Your task to perform on an android device: open a bookmark in the chrome app Image 0: 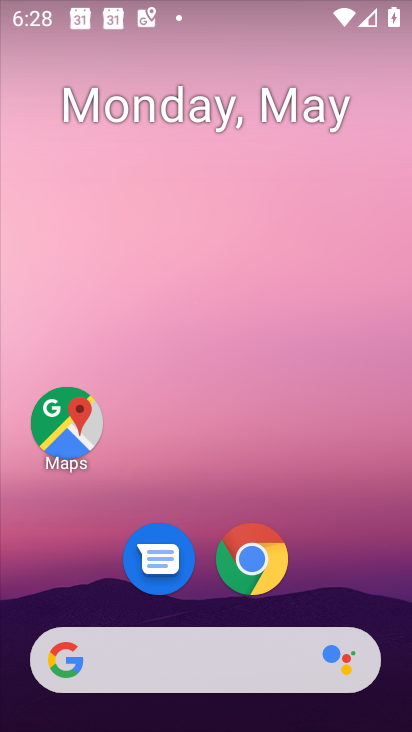
Step 0: drag from (395, 632) to (397, 319)
Your task to perform on an android device: open a bookmark in the chrome app Image 1: 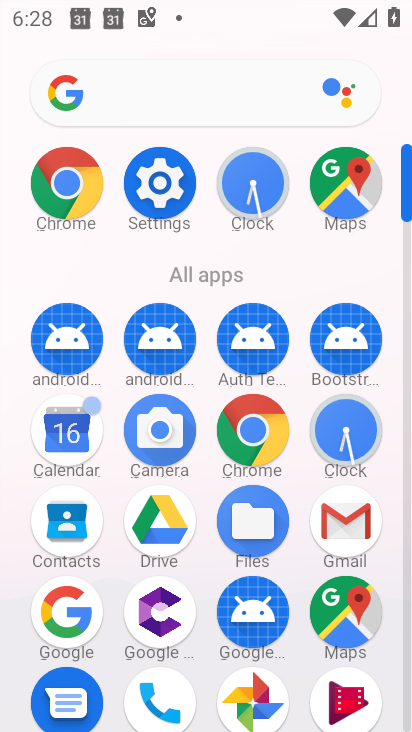
Step 1: click (73, 205)
Your task to perform on an android device: open a bookmark in the chrome app Image 2: 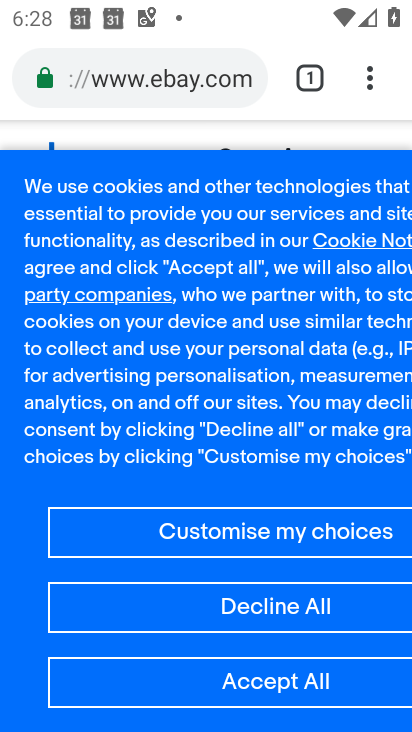
Step 2: press back button
Your task to perform on an android device: open a bookmark in the chrome app Image 3: 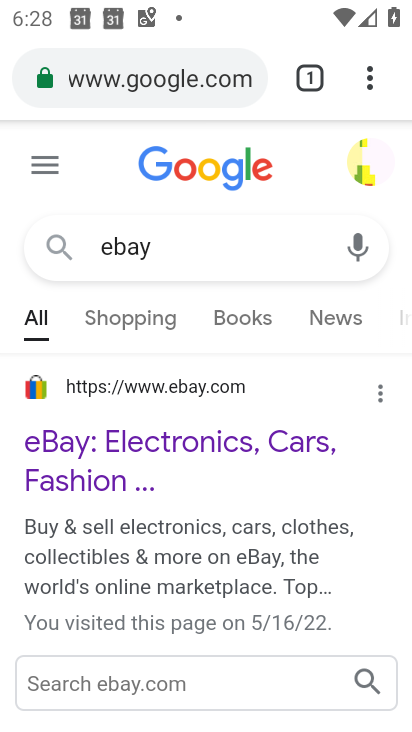
Step 3: press back button
Your task to perform on an android device: open a bookmark in the chrome app Image 4: 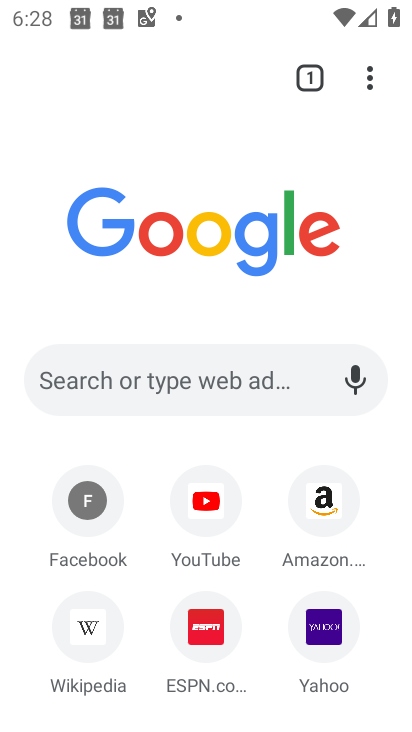
Step 4: click (369, 78)
Your task to perform on an android device: open a bookmark in the chrome app Image 5: 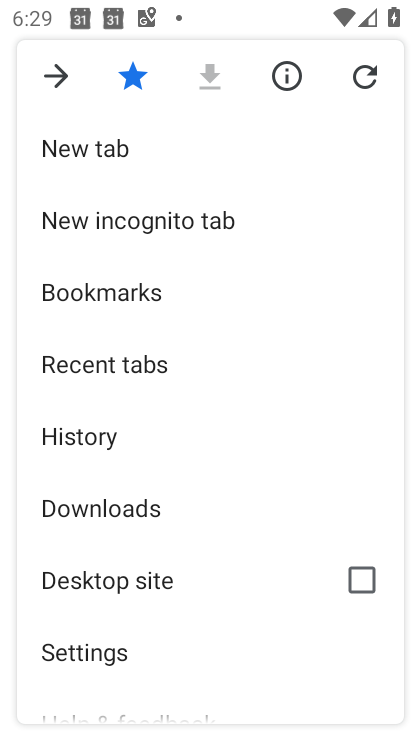
Step 5: click (203, 286)
Your task to perform on an android device: open a bookmark in the chrome app Image 6: 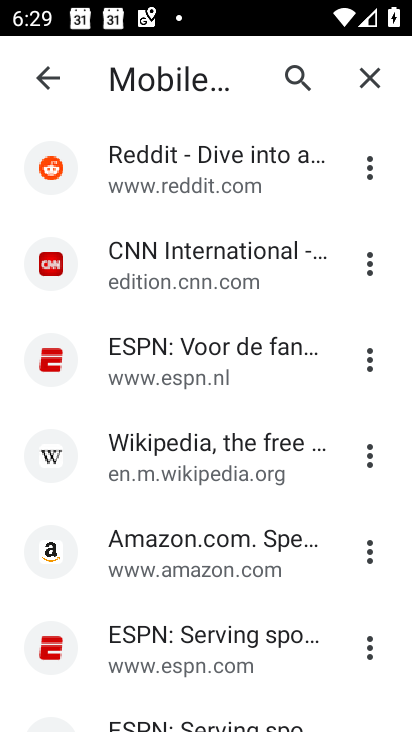
Step 6: task complete